Your task to perform on an android device: Check out the top rated books on Goodreads. Image 0: 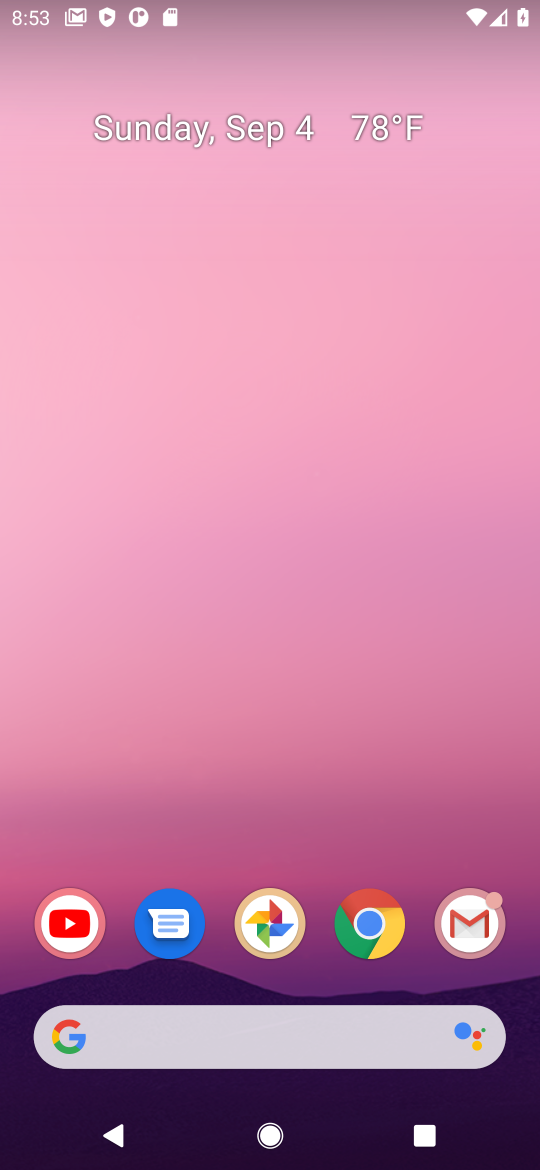
Step 0: click (353, 918)
Your task to perform on an android device: Check out the top rated books on Goodreads. Image 1: 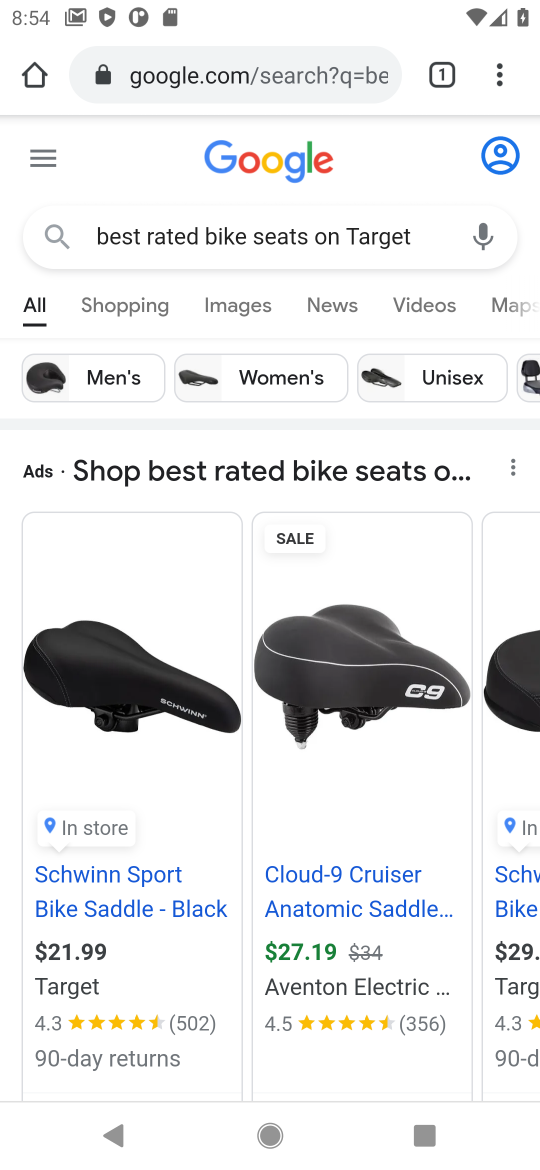
Step 1: click (339, 80)
Your task to perform on an android device: Check out the top rated books on Goodreads. Image 2: 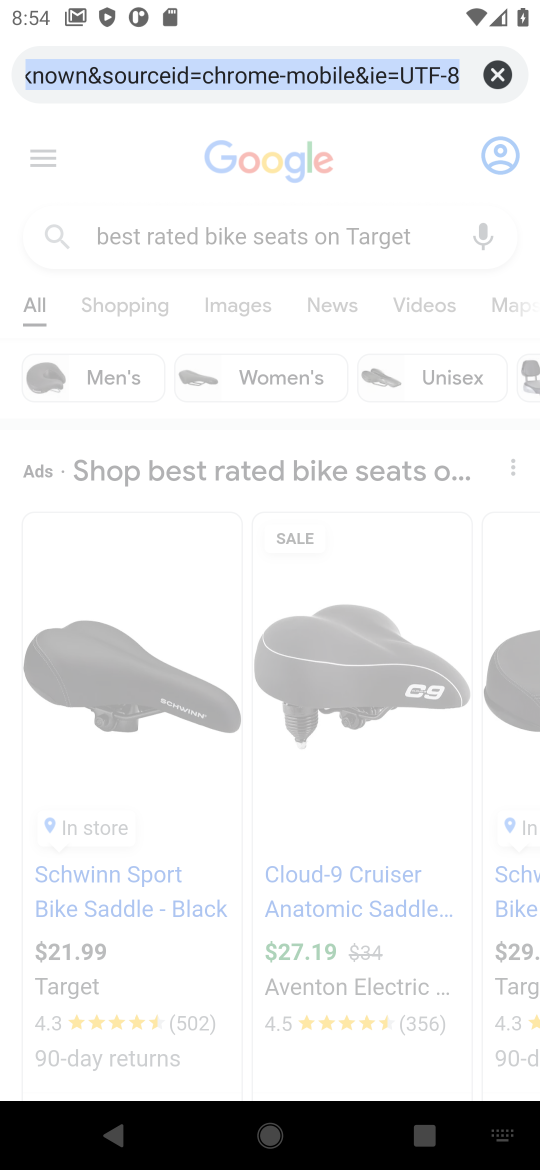
Step 2: click (508, 69)
Your task to perform on an android device: Check out the top rated books on Goodreads. Image 3: 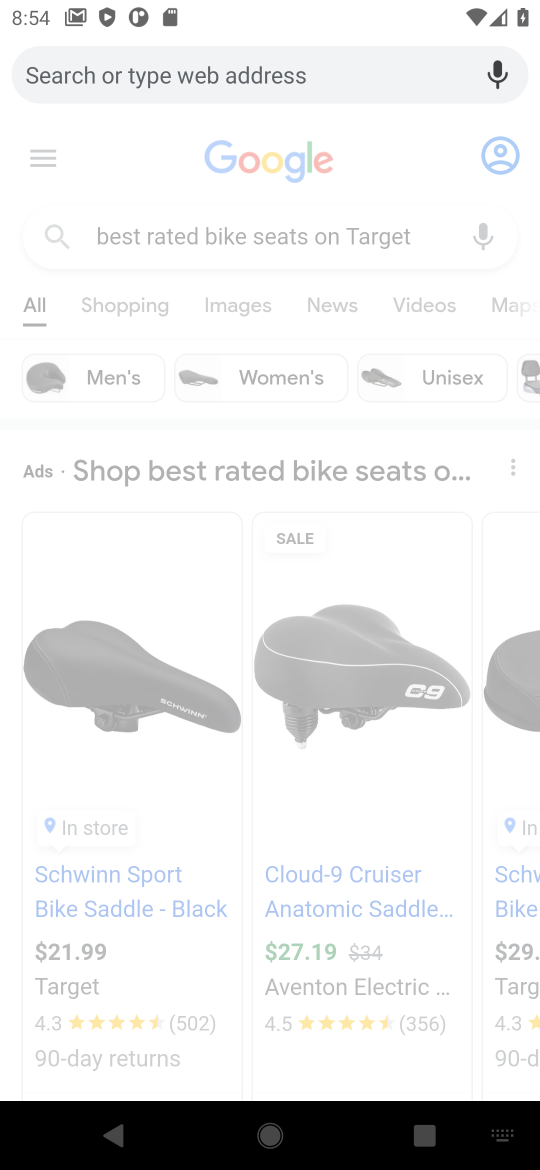
Step 3: click (101, 65)
Your task to perform on an android device: Check out the top rated books on Goodreads. Image 4: 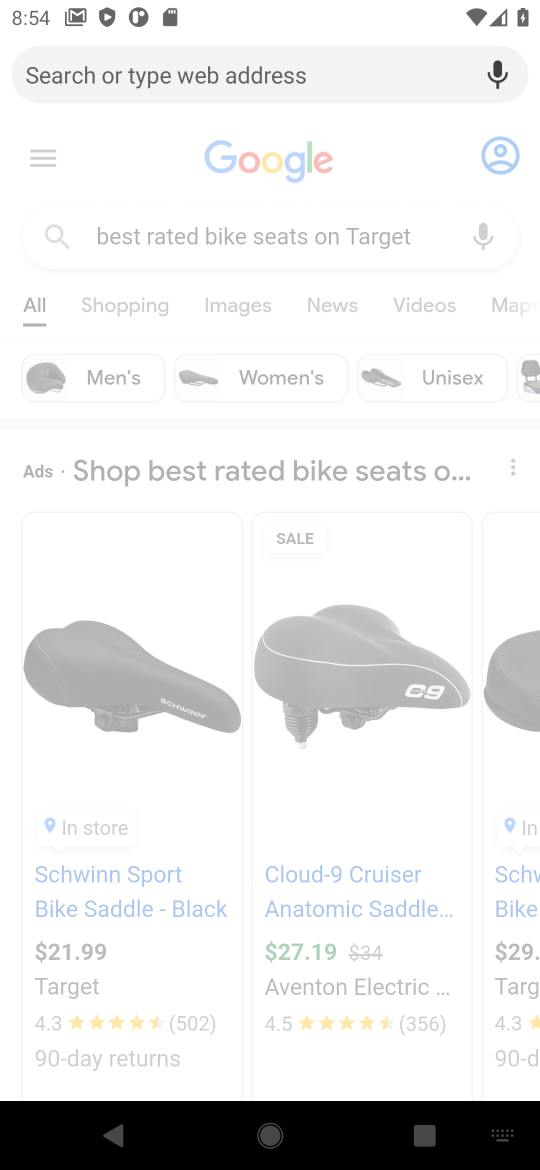
Step 4: type "the top rated books on Goodreads."
Your task to perform on an android device: Check out the top rated books on Goodreads. Image 5: 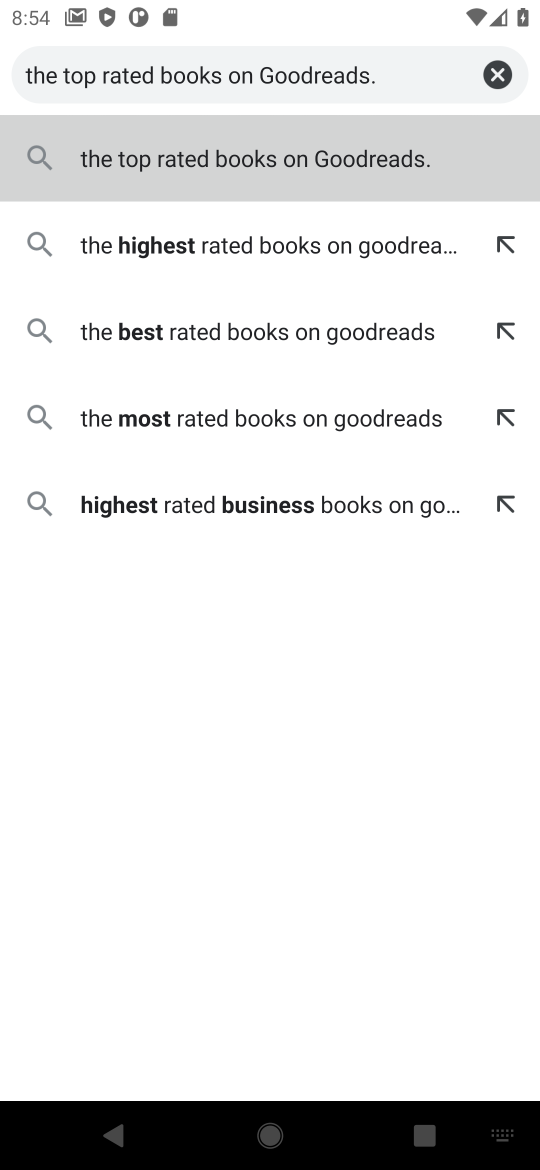
Step 5: click (121, 141)
Your task to perform on an android device: Check out the top rated books on Goodreads. Image 6: 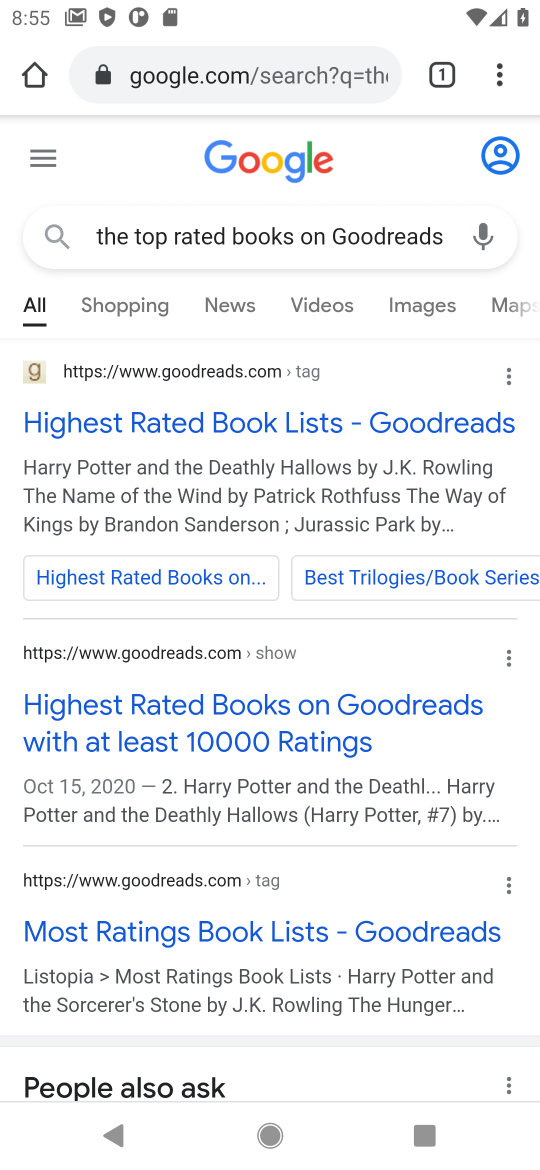
Step 6: drag from (8, 1022) to (156, 505)
Your task to perform on an android device: Check out the top rated books on Goodreads. Image 7: 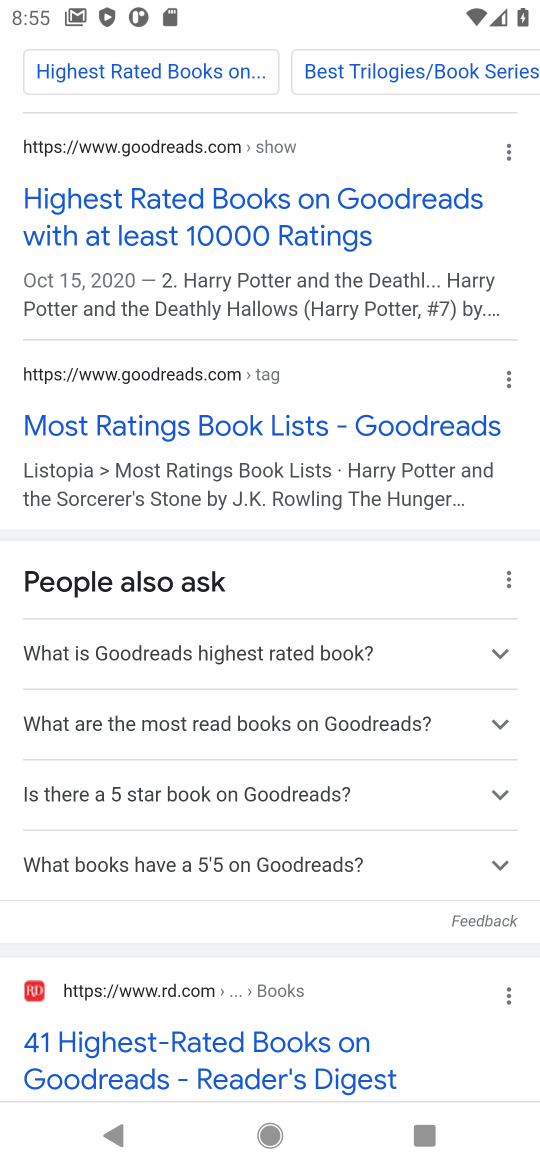
Step 7: drag from (13, 1096) to (146, 541)
Your task to perform on an android device: Check out the top rated books on Goodreads. Image 8: 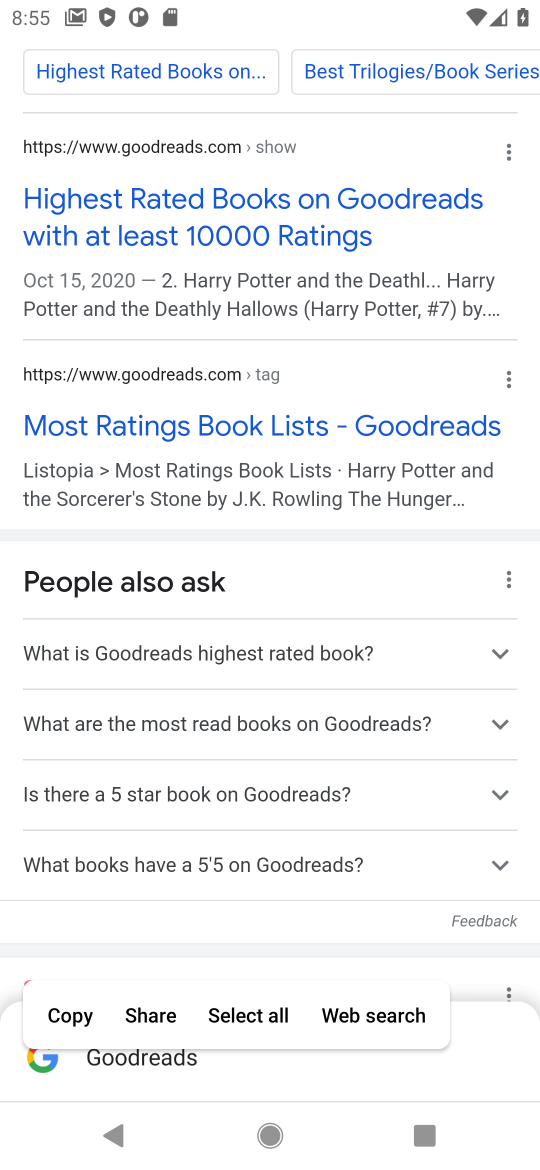
Step 8: click (146, 541)
Your task to perform on an android device: Check out the top rated books on Goodreads. Image 9: 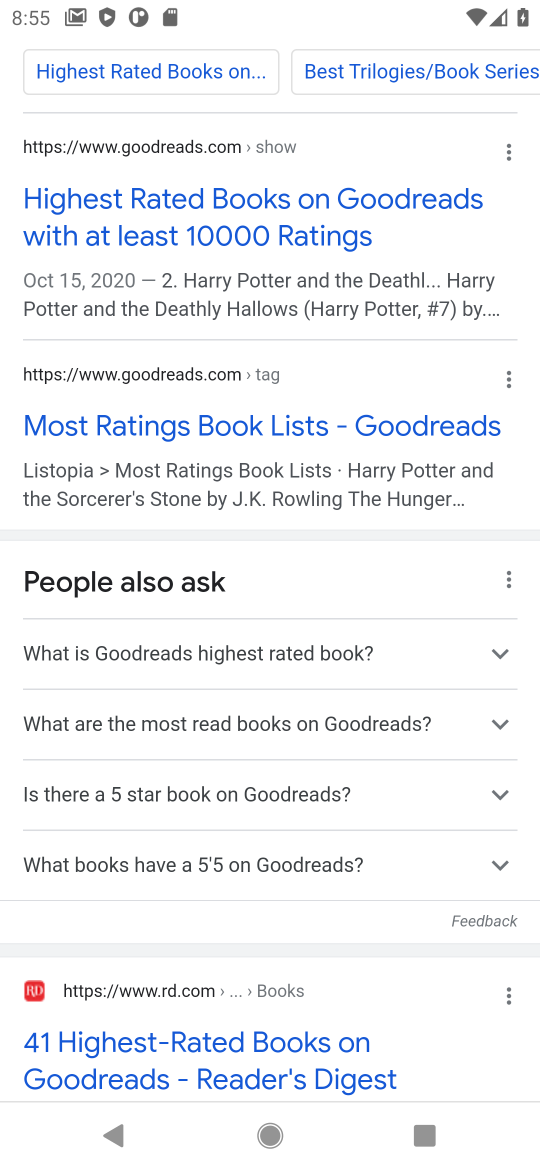
Step 9: task complete